Your task to perform on an android device: check data usage Image 0: 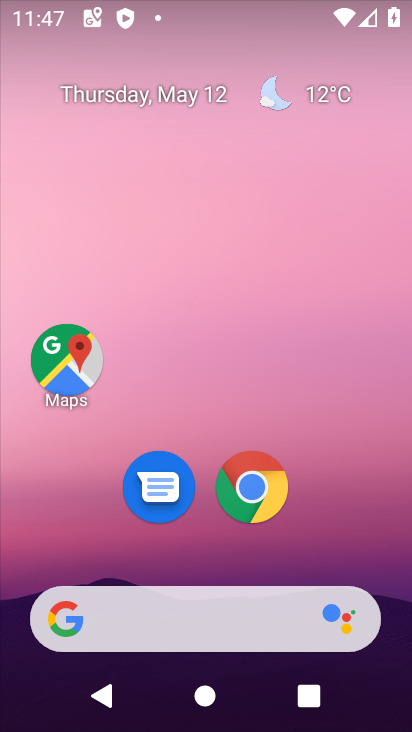
Step 0: drag from (372, 523) to (357, 2)
Your task to perform on an android device: check data usage Image 1: 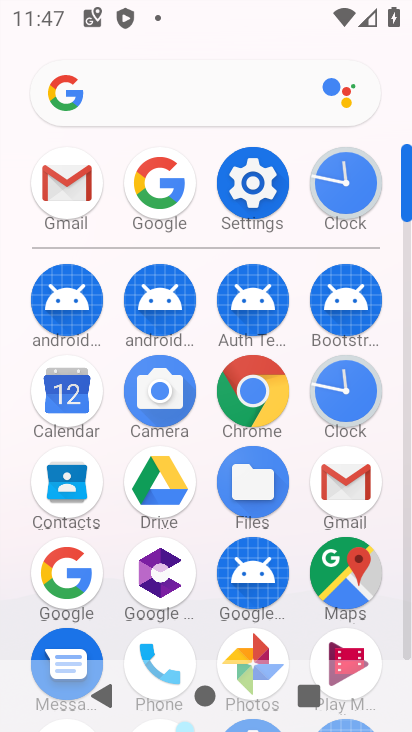
Step 1: click (252, 186)
Your task to perform on an android device: check data usage Image 2: 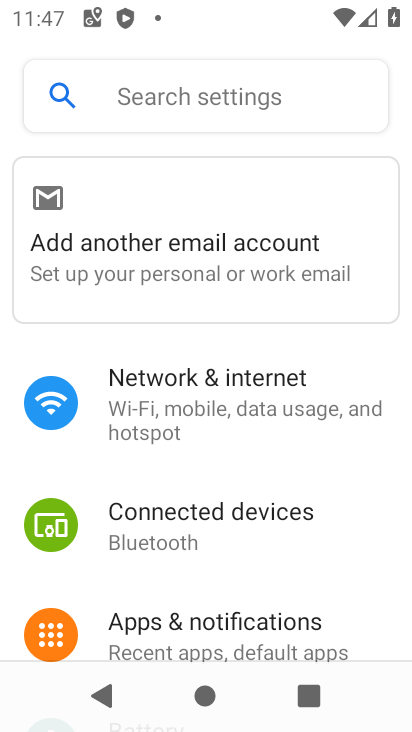
Step 2: click (188, 396)
Your task to perform on an android device: check data usage Image 3: 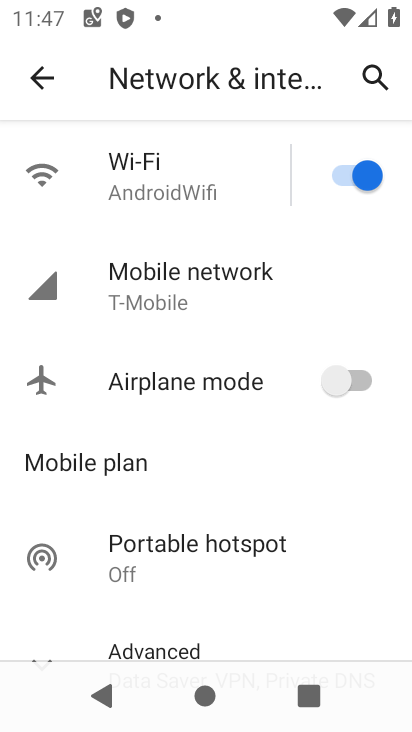
Step 3: click (165, 327)
Your task to perform on an android device: check data usage Image 4: 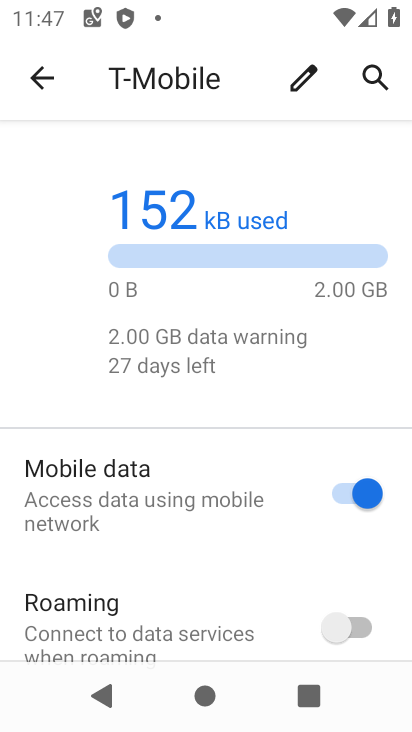
Step 4: drag from (154, 536) to (174, 29)
Your task to perform on an android device: check data usage Image 5: 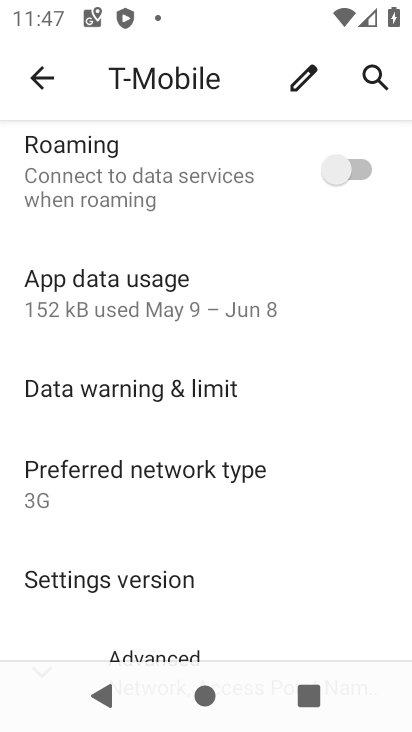
Step 5: click (100, 312)
Your task to perform on an android device: check data usage Image 6: 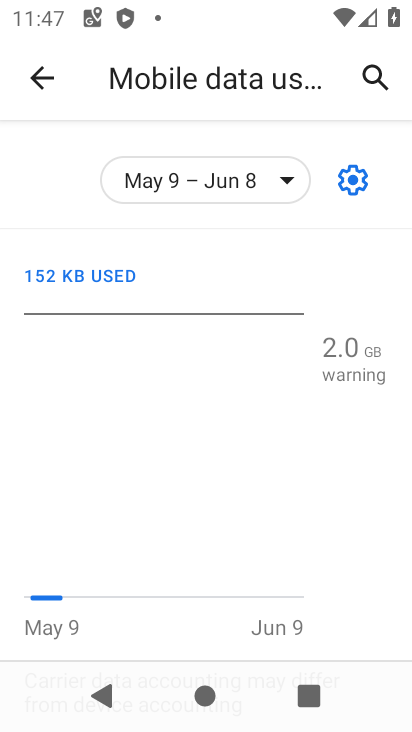
Step 6: task complete